Your task to perform on an android device: Open settings Image 0: 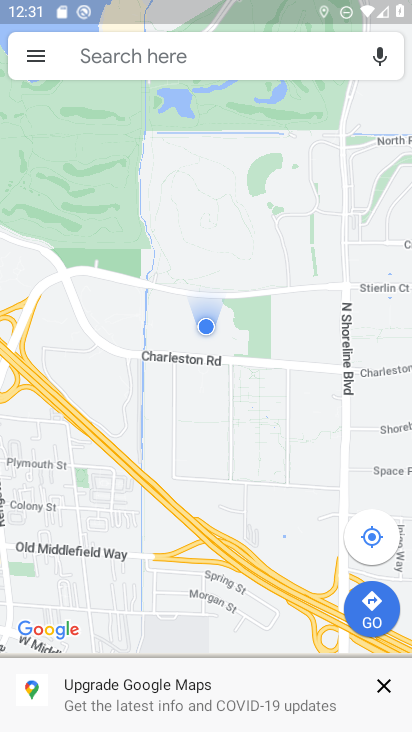
Step 0: press home button
Your task to perform on an android device: Open settings Image 1: 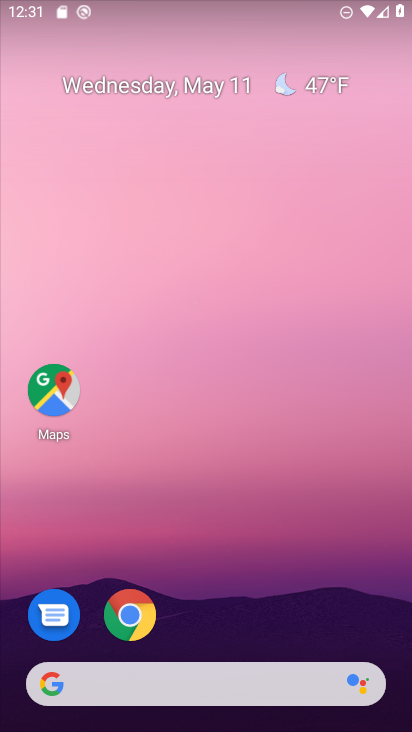
Step 1: drag from (338, 548) to (236, 98)
Your task to perform on an android device: Open settings Image 2: 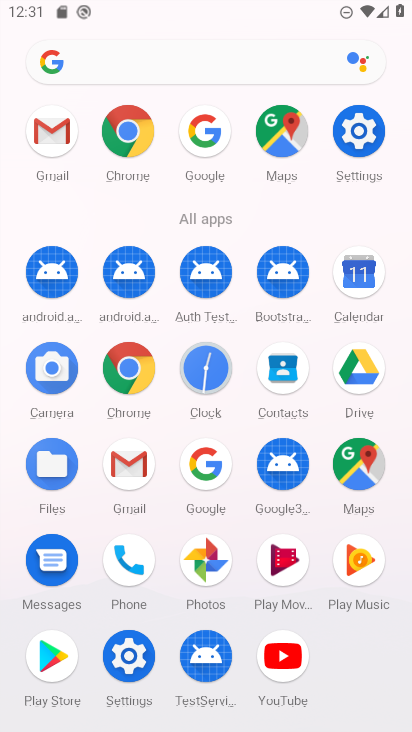
Step 2: click (356, 152)
Your task to perform on an android device: Open settings Image 3: 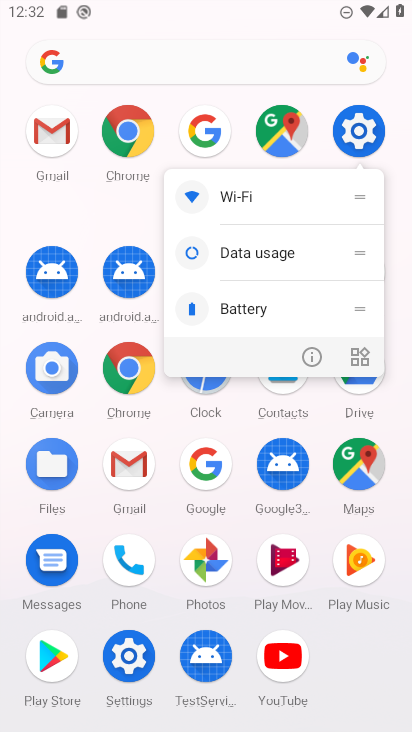
Step 3: click (360, 134)
Your task to perform on an android device: Open settings Image 4: 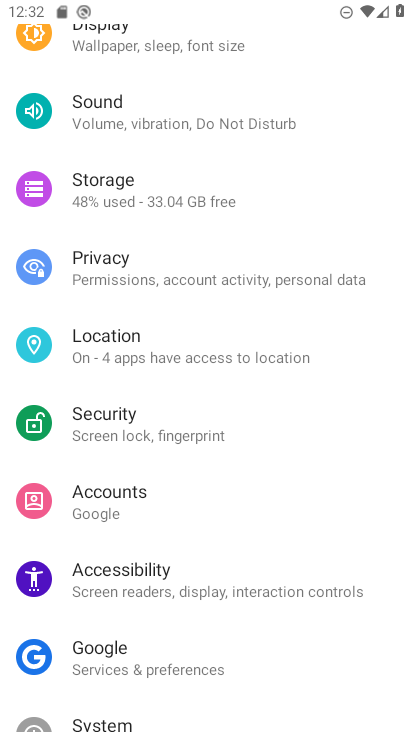
Step 4: task complete